Your task to perform on an android device: set the timer Image 0: 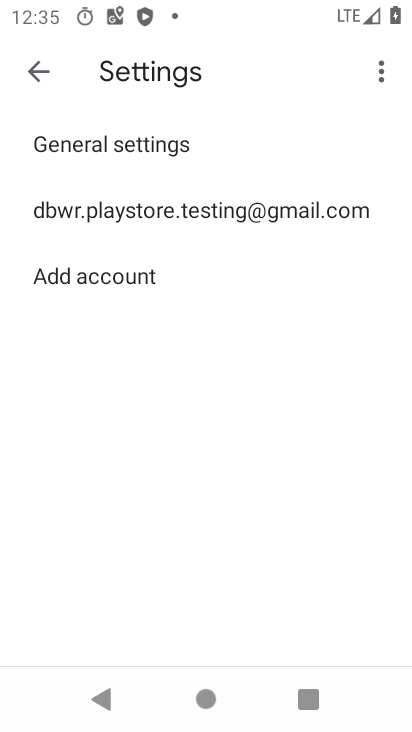
Step 0: press home button
Your task to perform on an android device: set the timer Image 1: 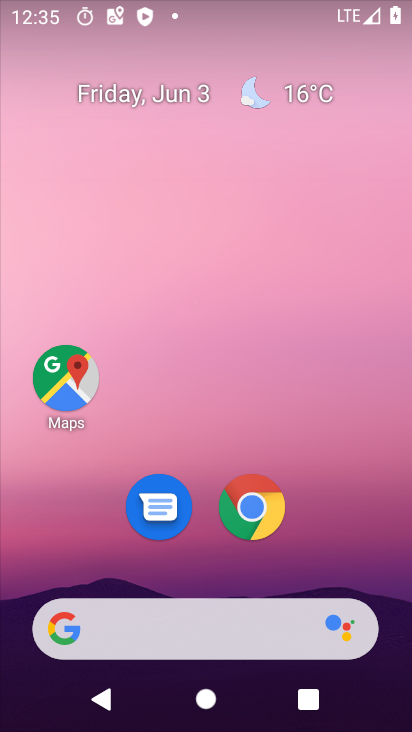
Step 1: drag from (389, 622) to (319, 82)
Your task to perform on an android device: set the timer Image 2: 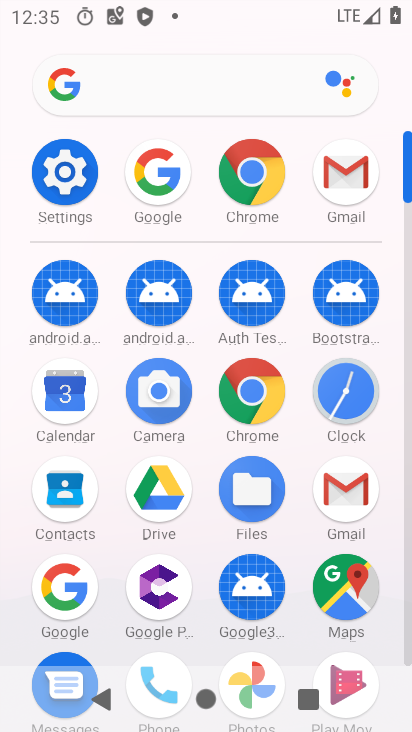
Step 2: click (341, 419)
Your task to perform on an android device: set the timer Image 3: 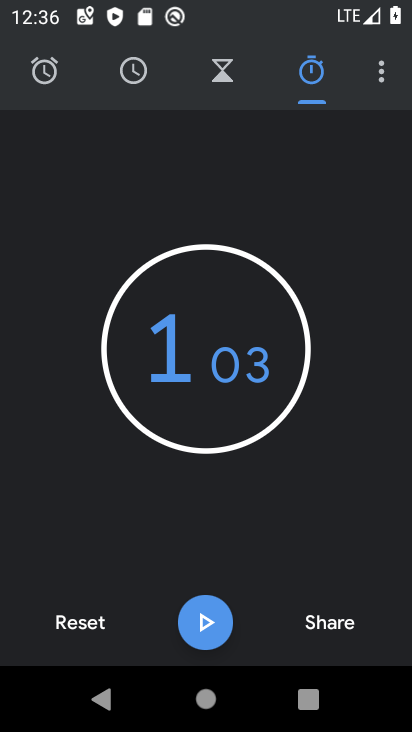
Step 3: click (382, 70)
Your task to perform on an android device: set the timer Image 4: 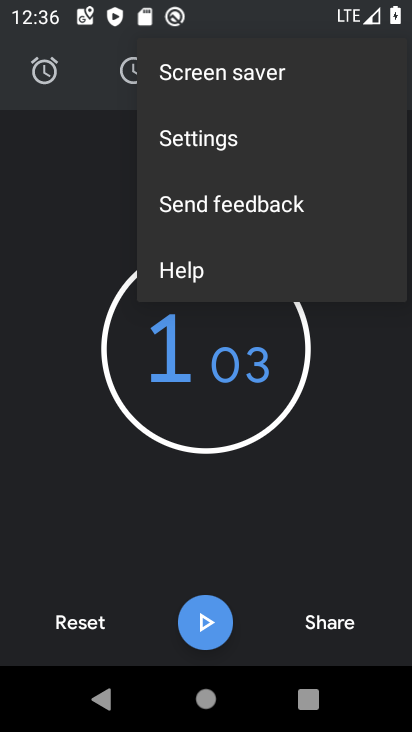
Step 4: click (261, 140)
Your task to perform on an android device: set the timer Image 5: 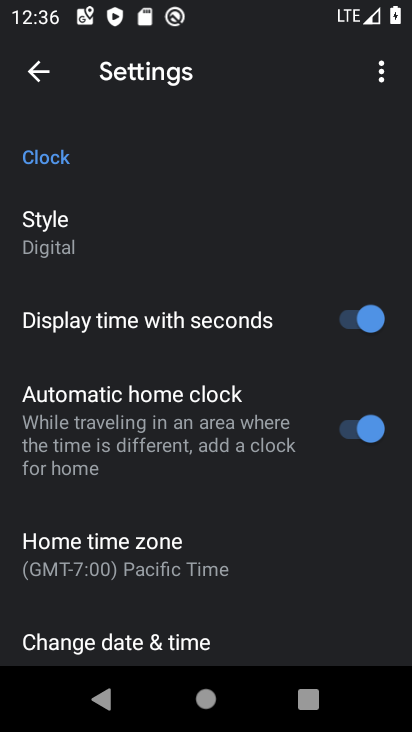
Step 5: click (142, 551)
Your task to perform on an android device: set the timer Image 6: 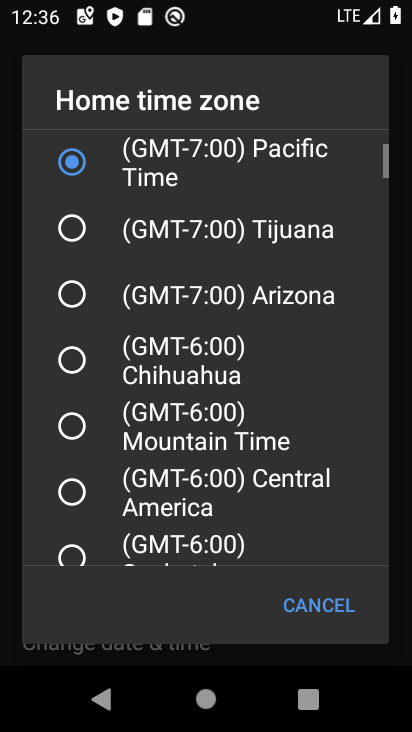
Step 6: click (78, 423)
Your task to perform on an android device: set the timer Image 7: 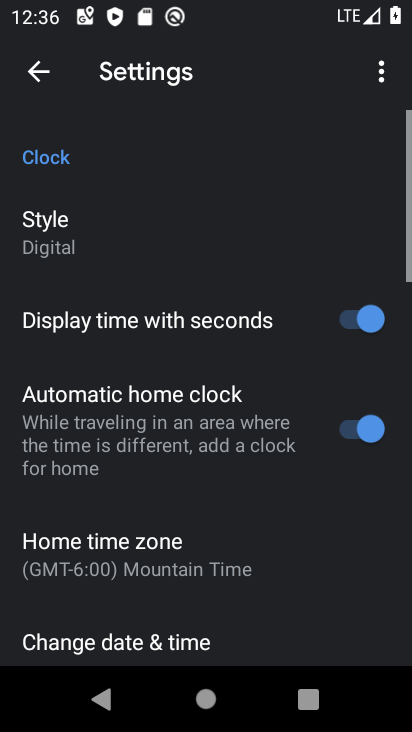
Step 7: task complete